Your task to perform on an android device: open the mobile data screen to see how much data has been used Image 0: 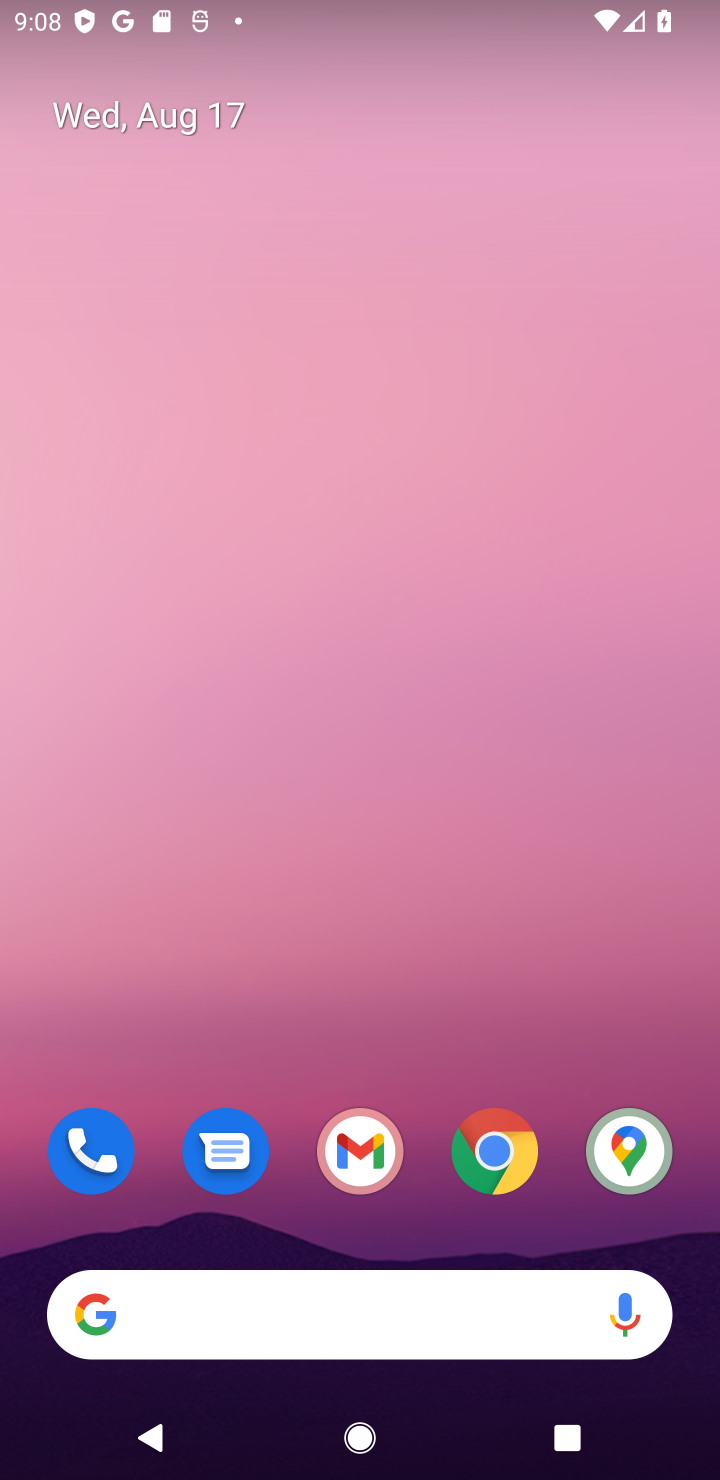
Step 0: drag from (426, 1212) to (480, 235)
Your task to perform on an android device: open the mobile data screen to see how much data has been used Image 1: 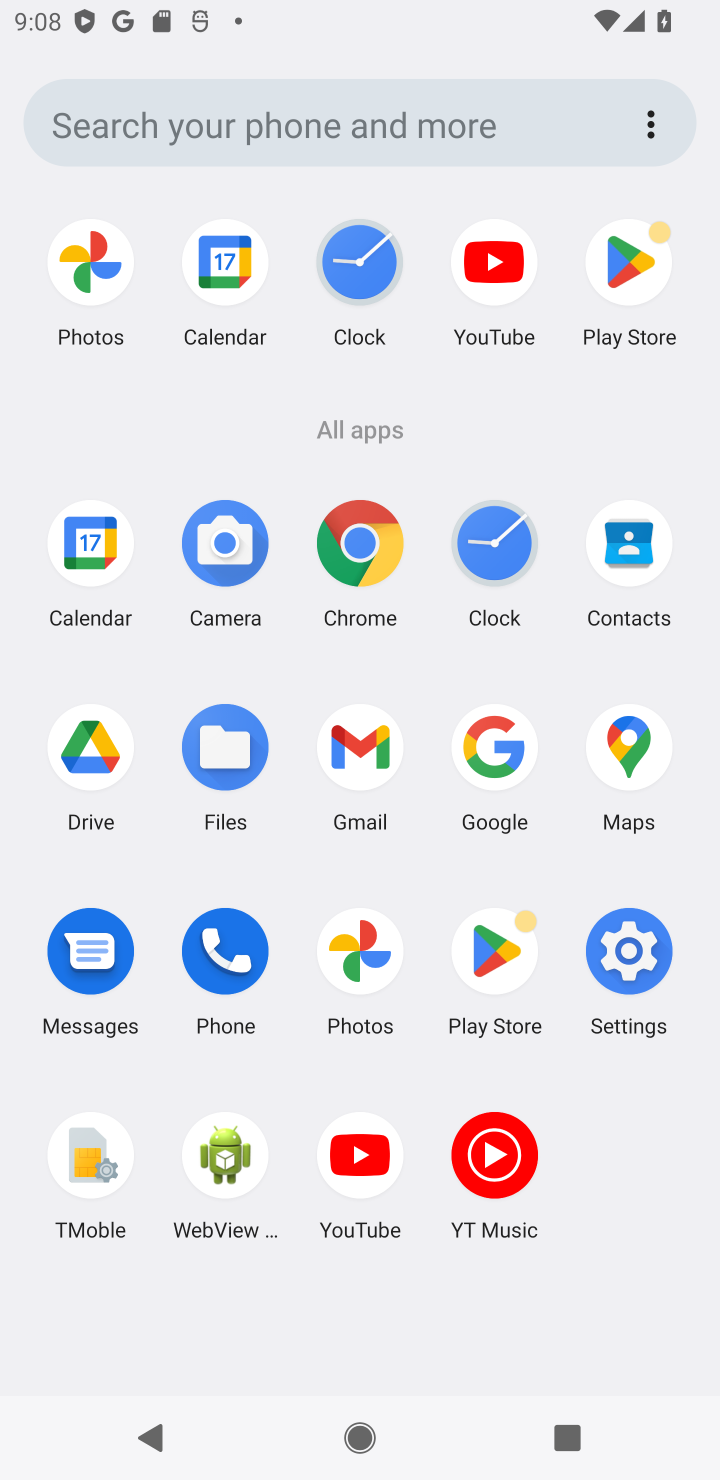
Step 1: click (608, 941)
Your task to perform on an android device: open the mobile data screen to see how much data has been used Image 2: 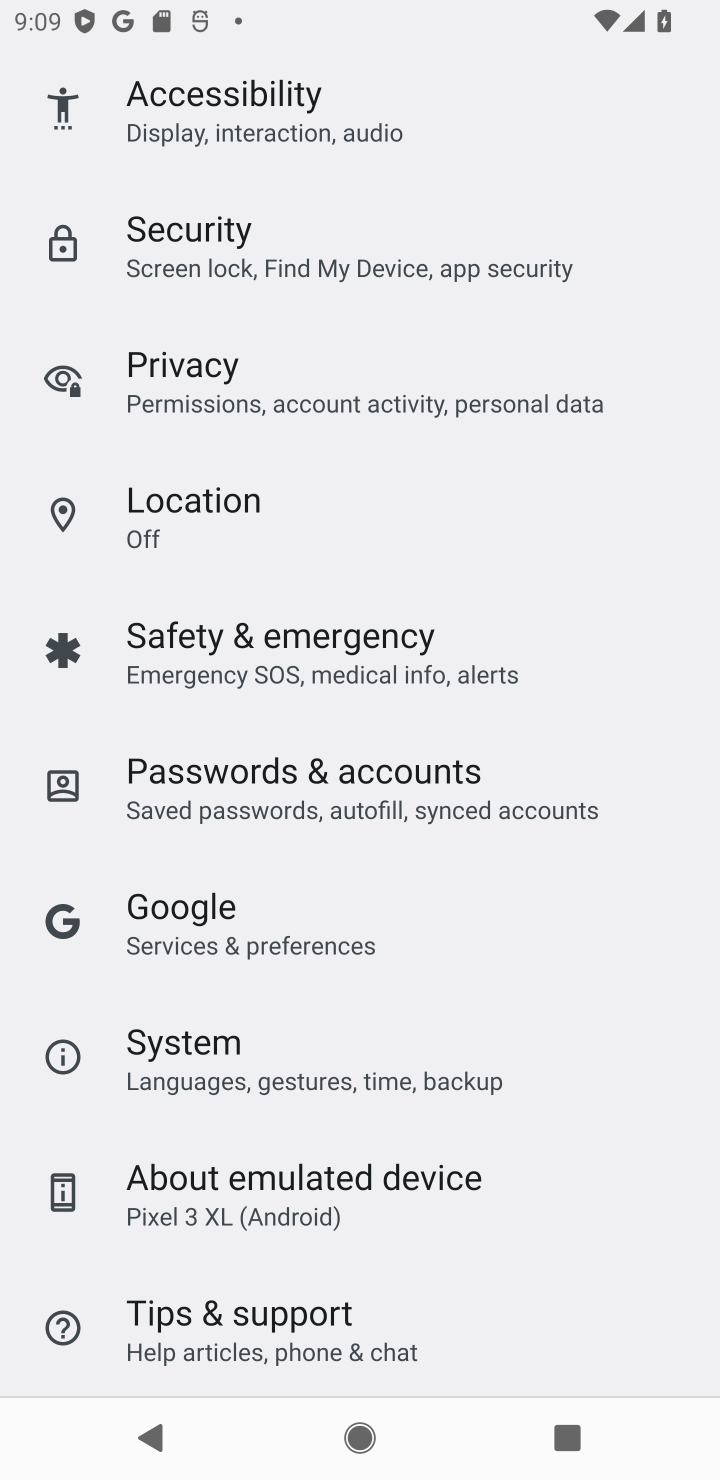
Step 2: drag from (419, 460) to (419, 932)
Your task to perform on an android device: open the mobile data screen to see how much data has been used Image 3: 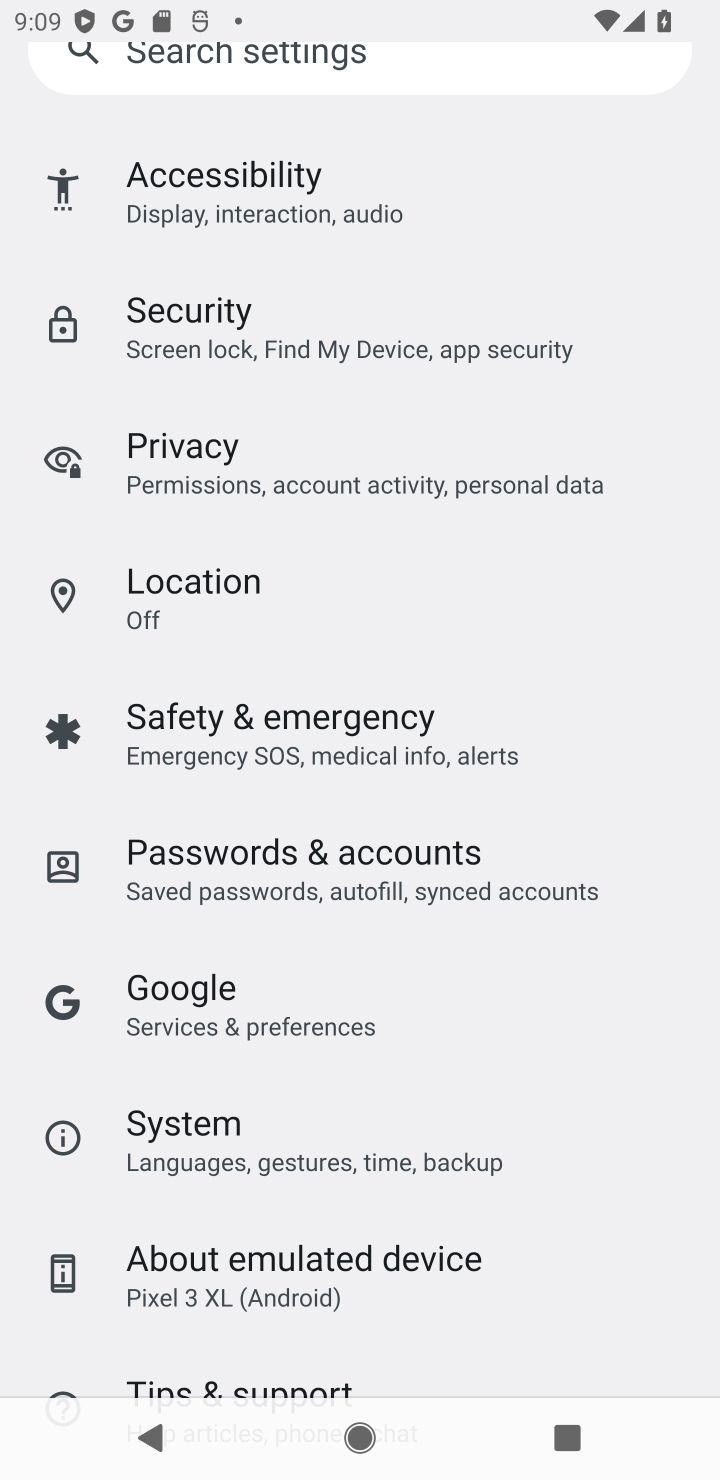
Step 3: drag from (376, 325) to (418, 890)
Your task to perform on an android device: open the mobile data screen to see how much data has been used Image 4: 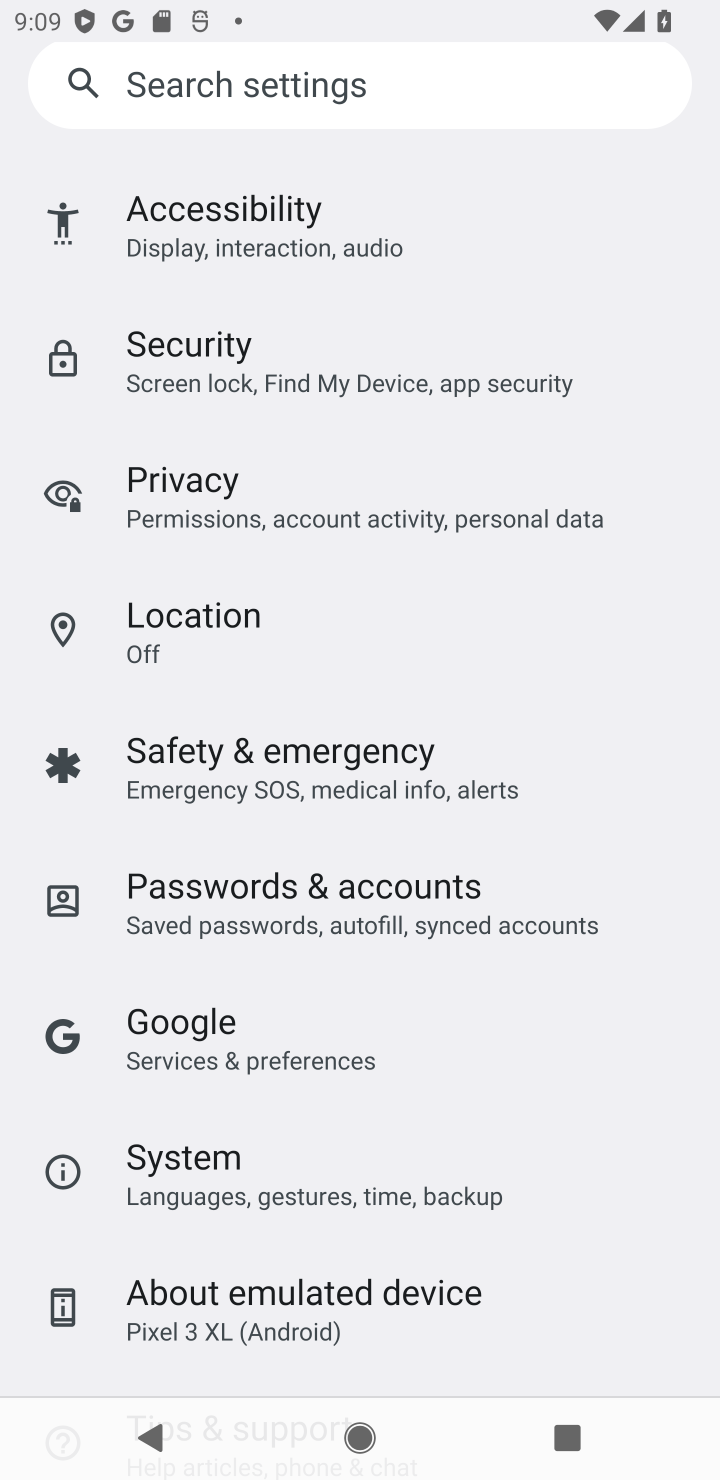
Step 4: drag from (240, 287) to (304, 952)
Your task to perform on an android device: open the mobile data screen to see how much data has been used Image 5: 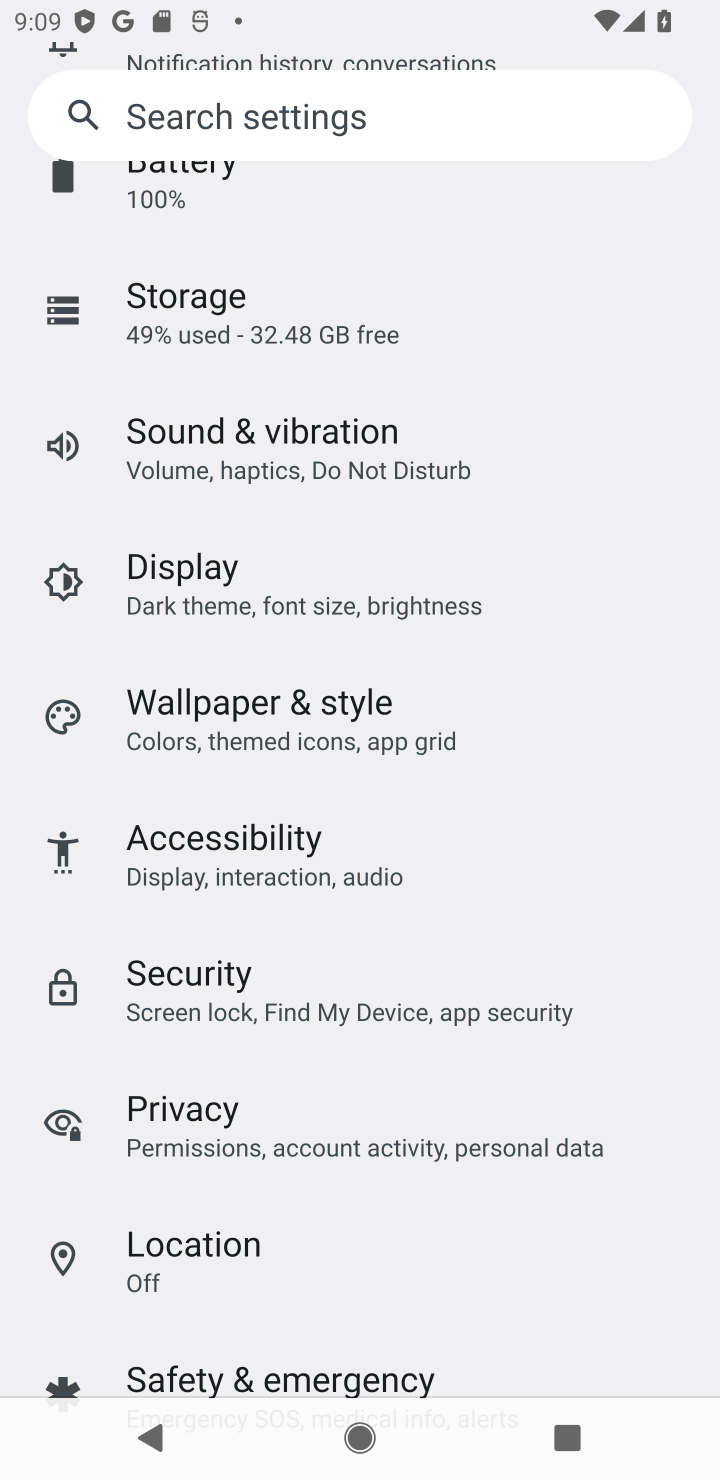
Step 5: drag from (322, 499) to (319, 933)
Your task to perform on an android device: open the mobile data screen to see how much data has been used Image 6: 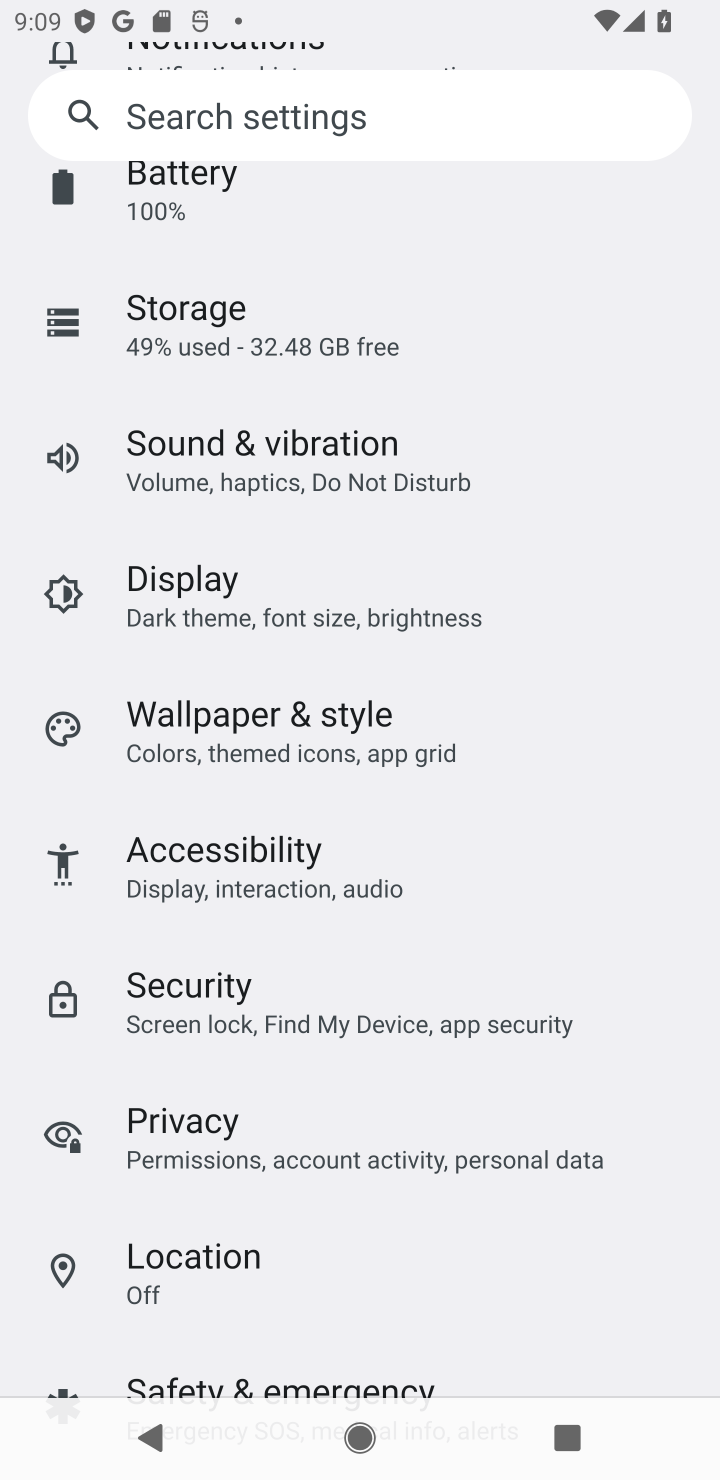
Step 6: drag from (380, 416) to (317, 1111)
Your task to perform on an android device: open the mobile data screen to see how much data has been used Image 7: 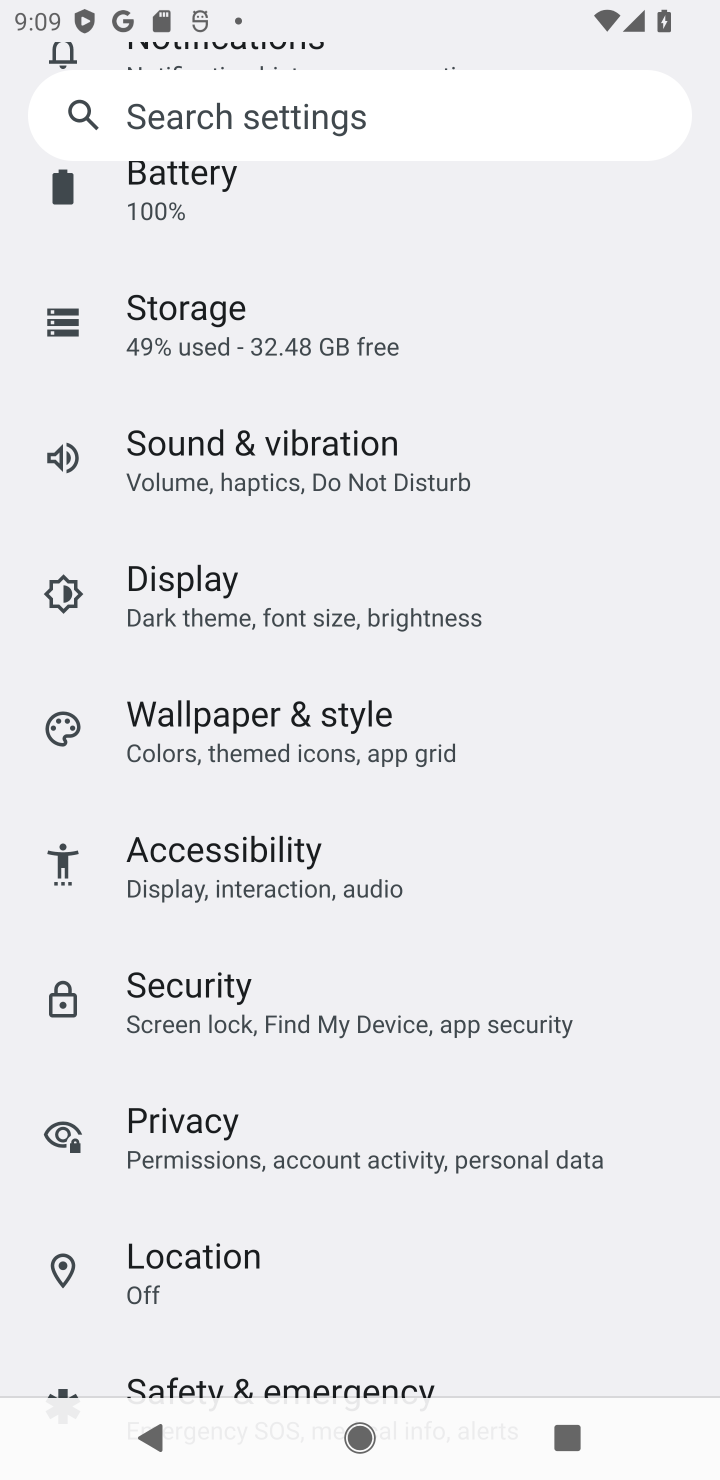
Step 7: drag from (308, 346) to (314, 933)
Your task to perform on an android device: open the mobile data screen to see how much data has been used Image 8: 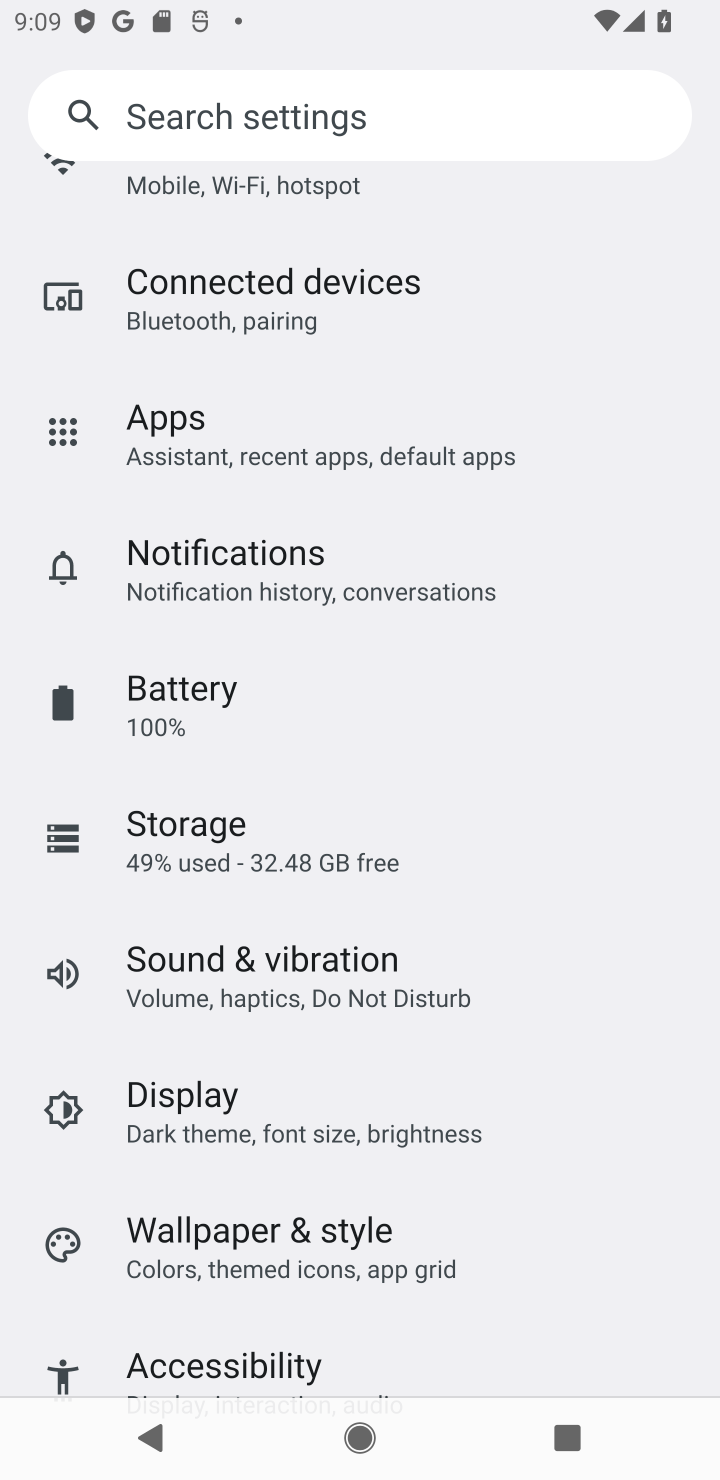
Step 8: drag from (335, 488) to (352, 926)
Your task to perform on an android device: open the mobile data screen to see how much data has been used Image 9: 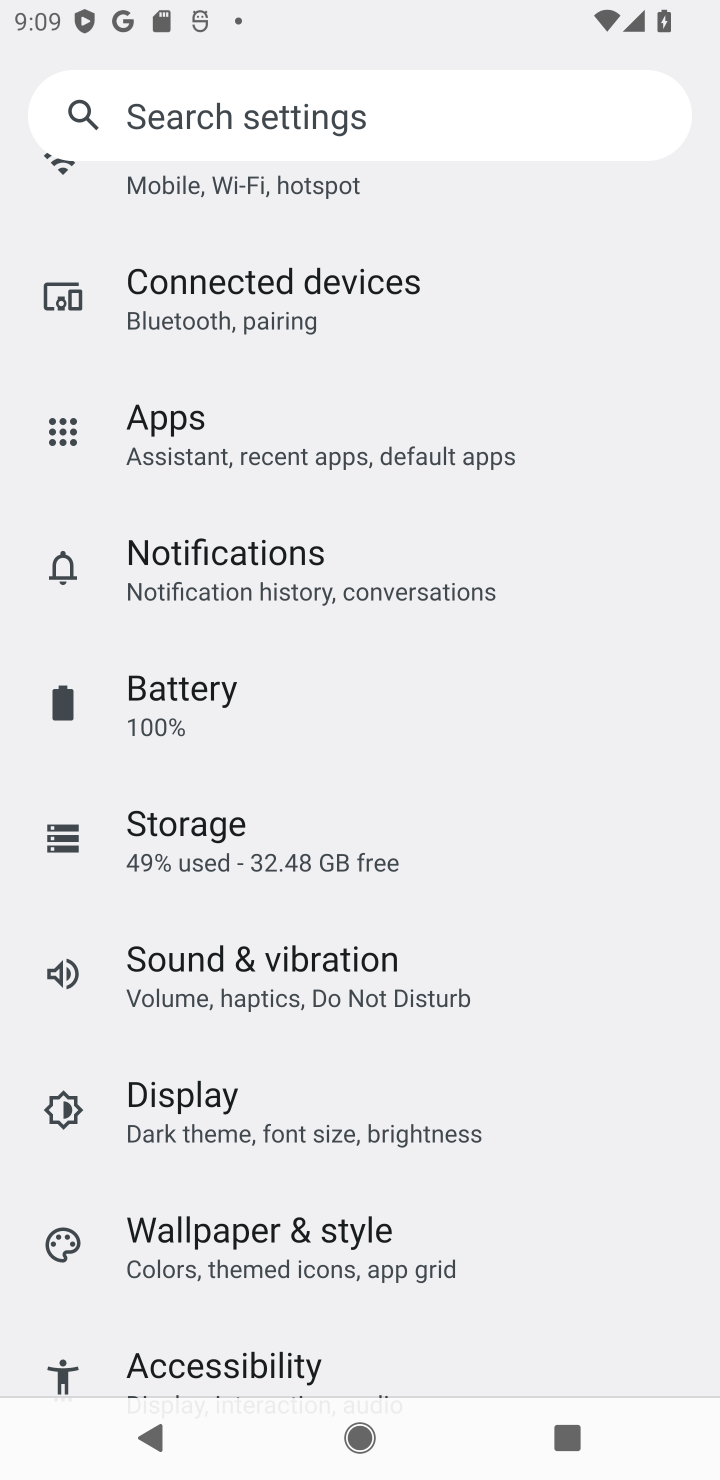
Step 9: click (385, 1181)
Your task to perform on an android device: open the mobile data screen to see how much data has been used Image 10: 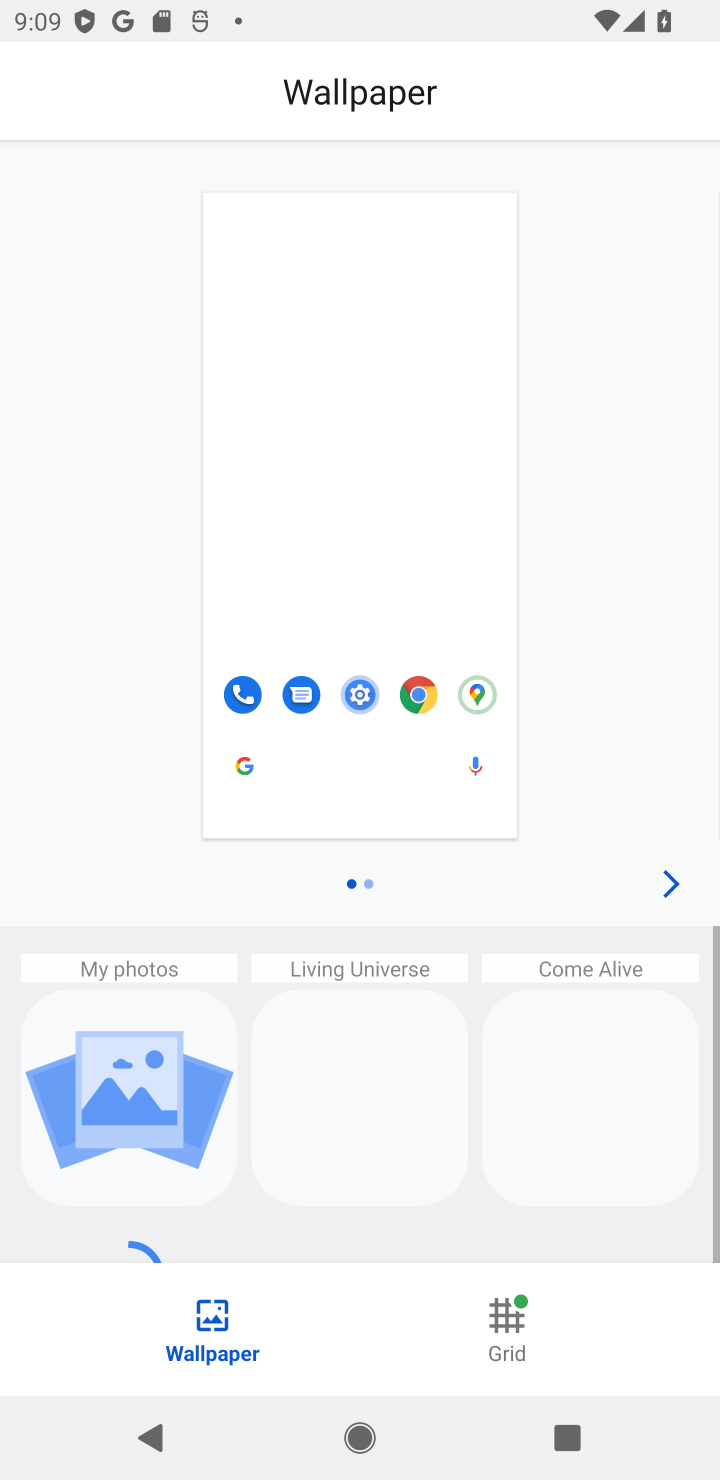
Step 10: press back button
Your task to perform on an android device: open the mobile data screen to see how much data has been used Image 11: 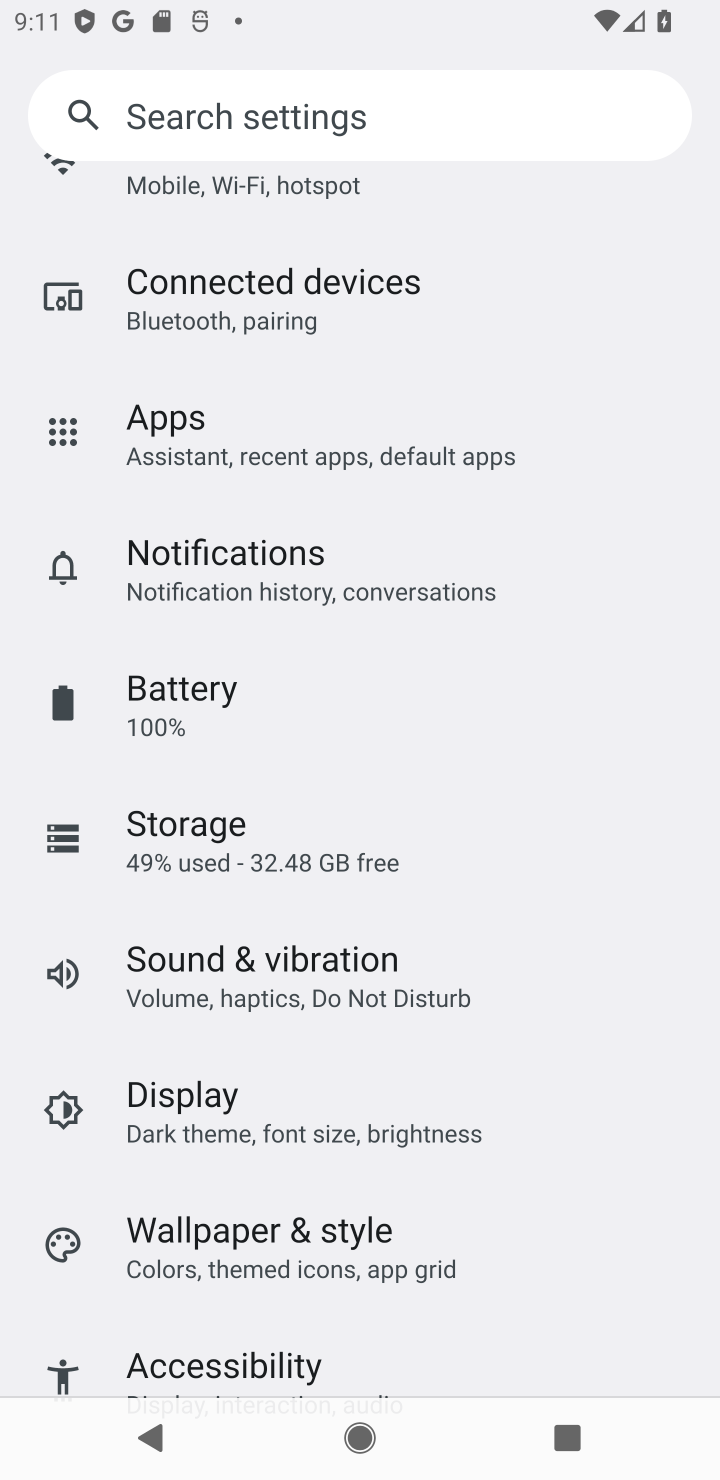
Step 11: drag from (401, 584) to (428, 1112)
Your task to perform on an android device: open the mobile data screen to see how much data has been used Image 12: 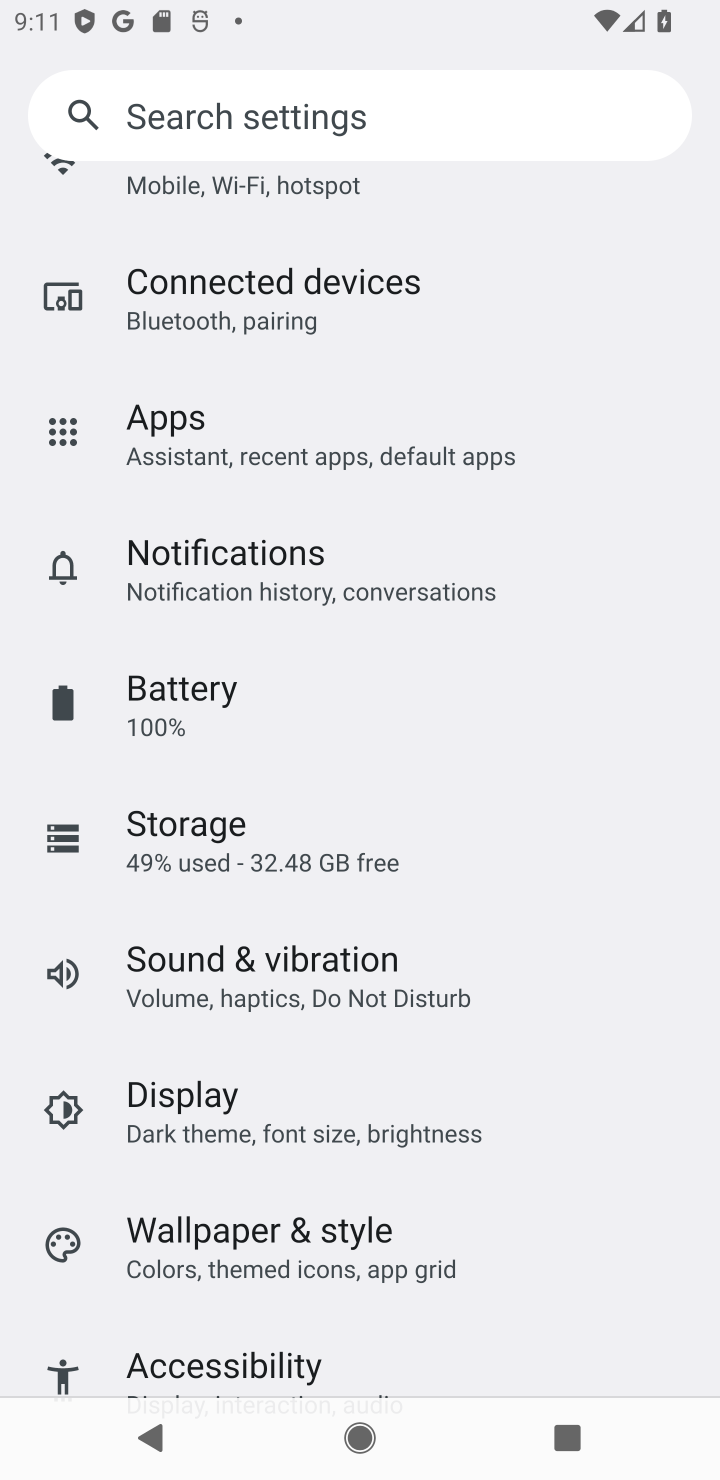
Step 12: drag from (286, 552) to (374, 1174)
Your task to perform on an android device: open the mobile data screen to see how much data has been used Image 13: 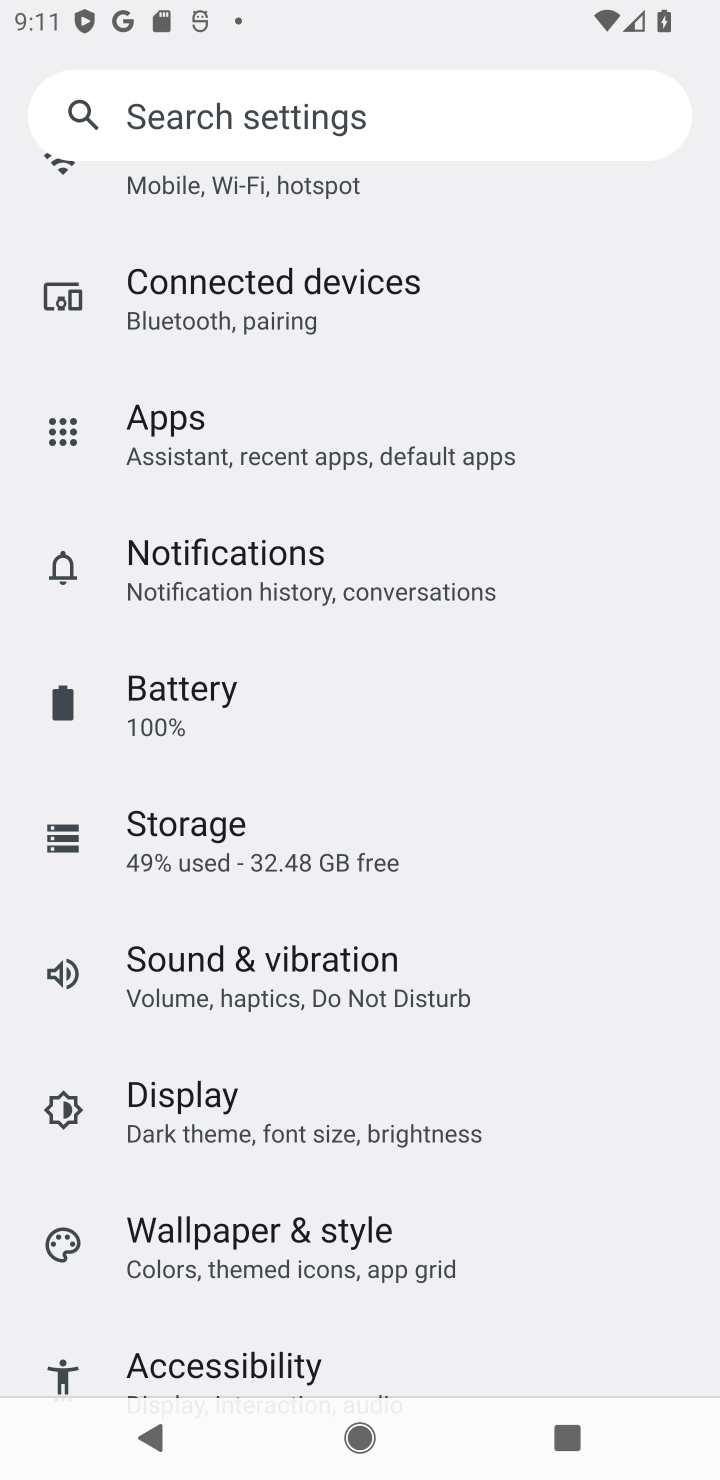
Step 13: drag from (405, 324) to (417, 942)
Your task to perform on an android device: open the mobile data screen to see how much data has been used Image 14: 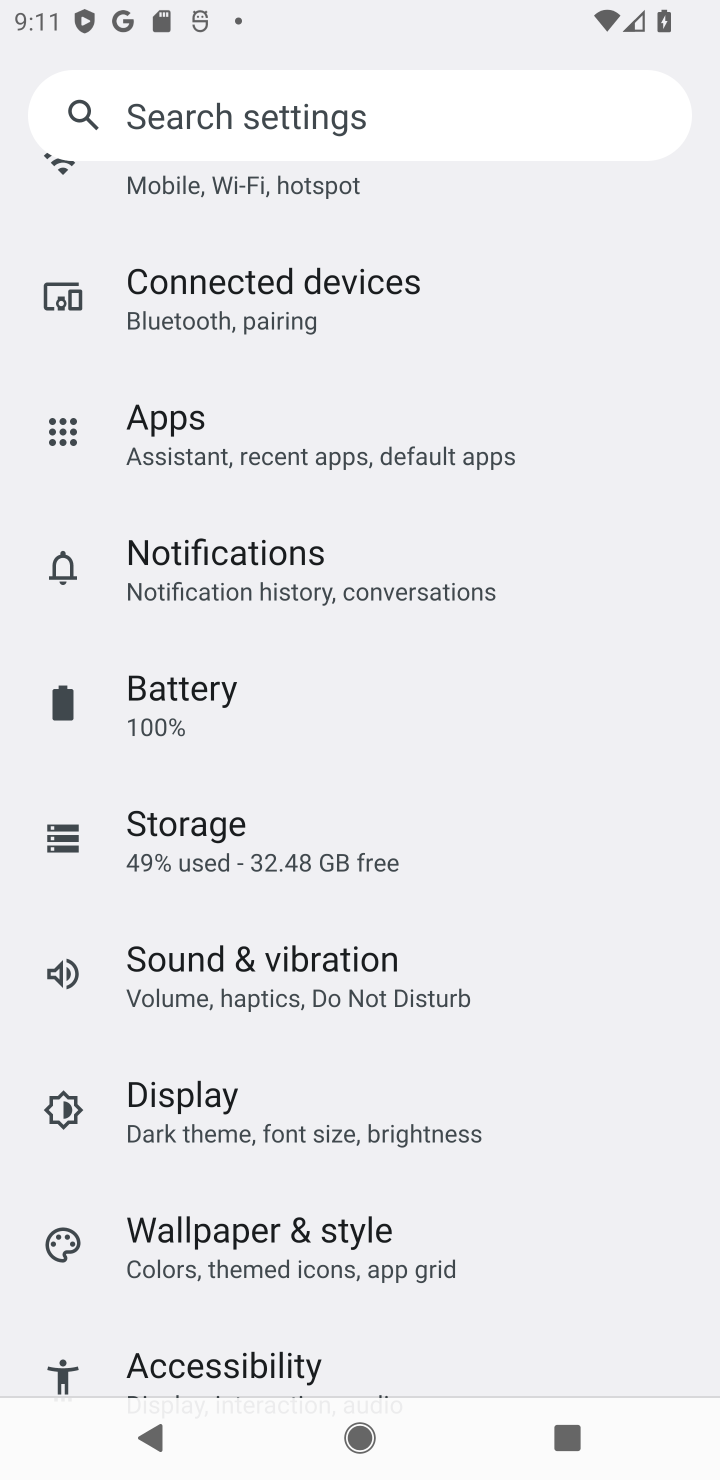
Step 14: drag from (352, 510) to (382, 1184)
Your task to perform on an android device: open the mobile data screen to see how much data has been used Image 15: 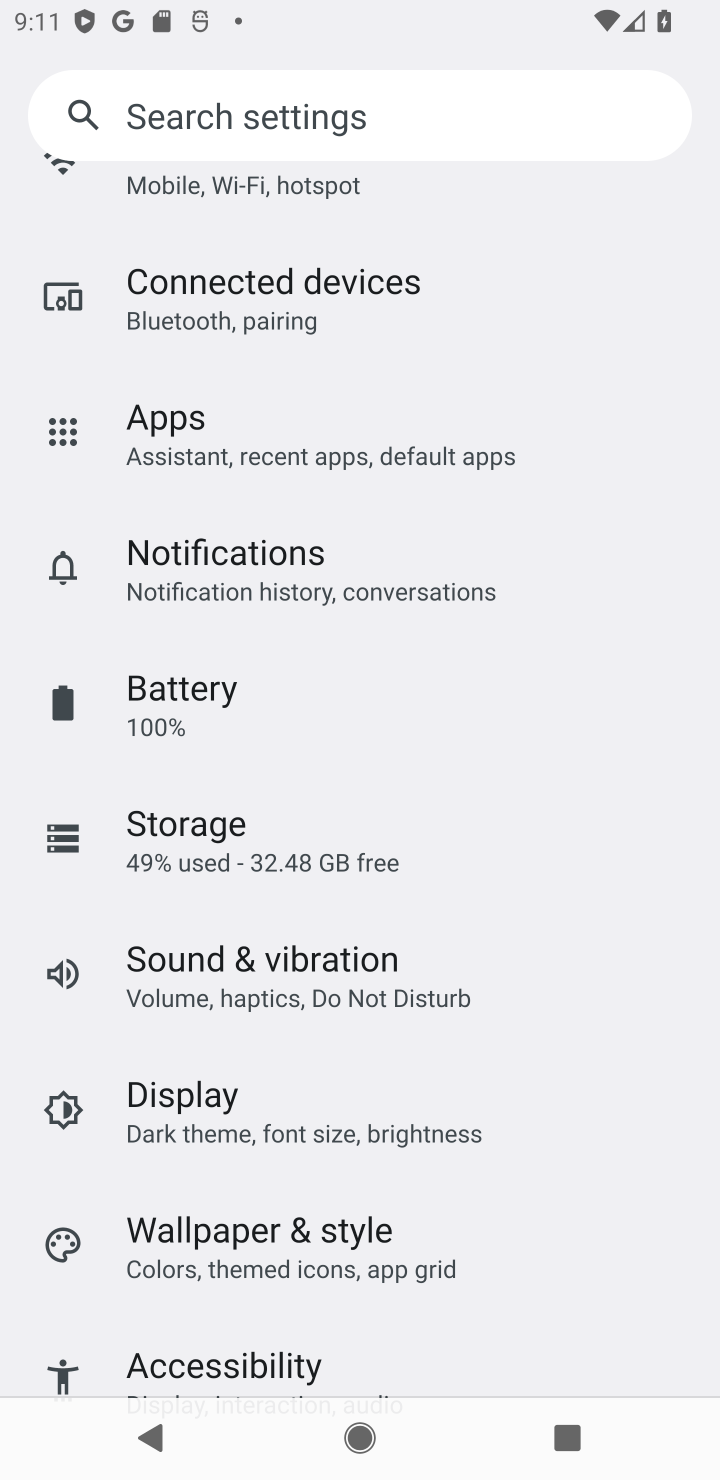
Step 15: drag from (308, 230) to (308, 949)
Your task to perform on an android device: open the mobile data screen to see how much data has been used Image 16: 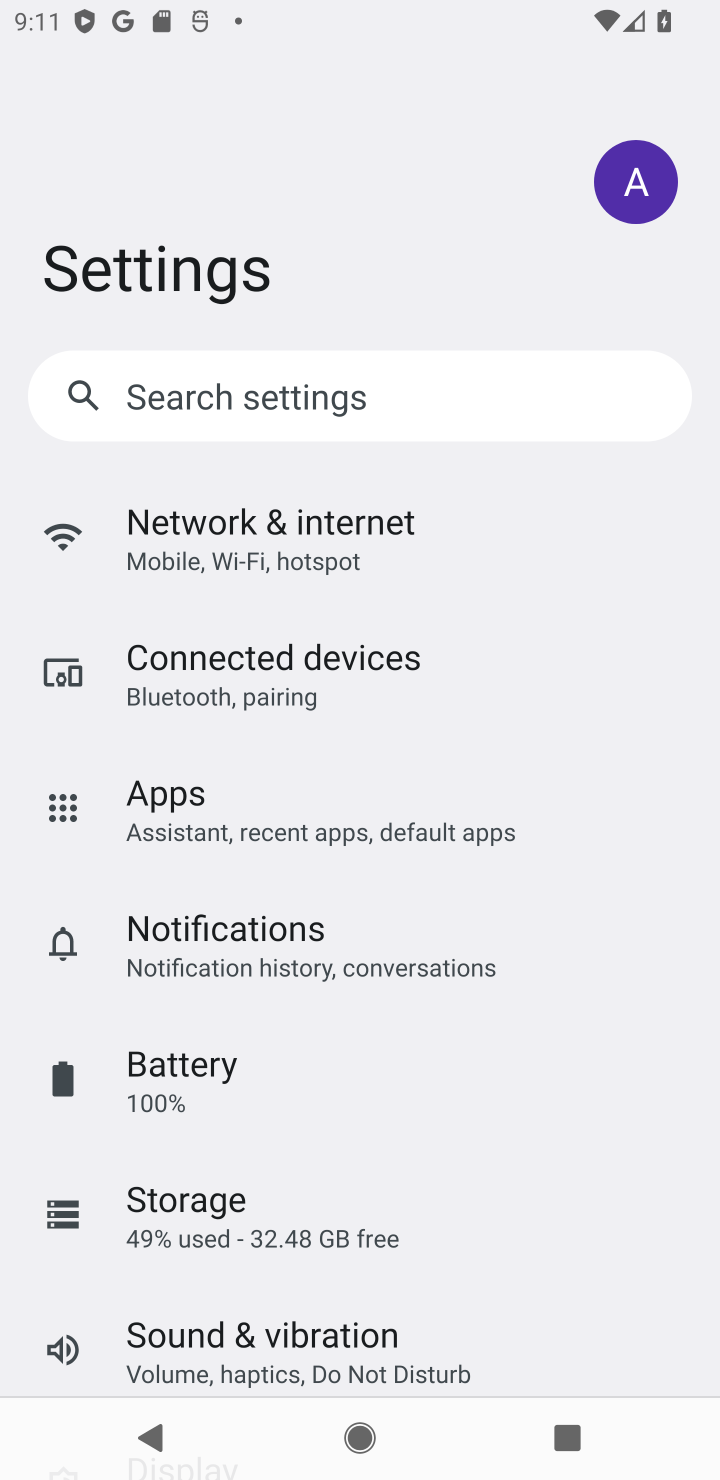
Step 16: click (193, 518)
Your task to perform on an android device: open the mobile data screen to see how much data has been used Image 17: 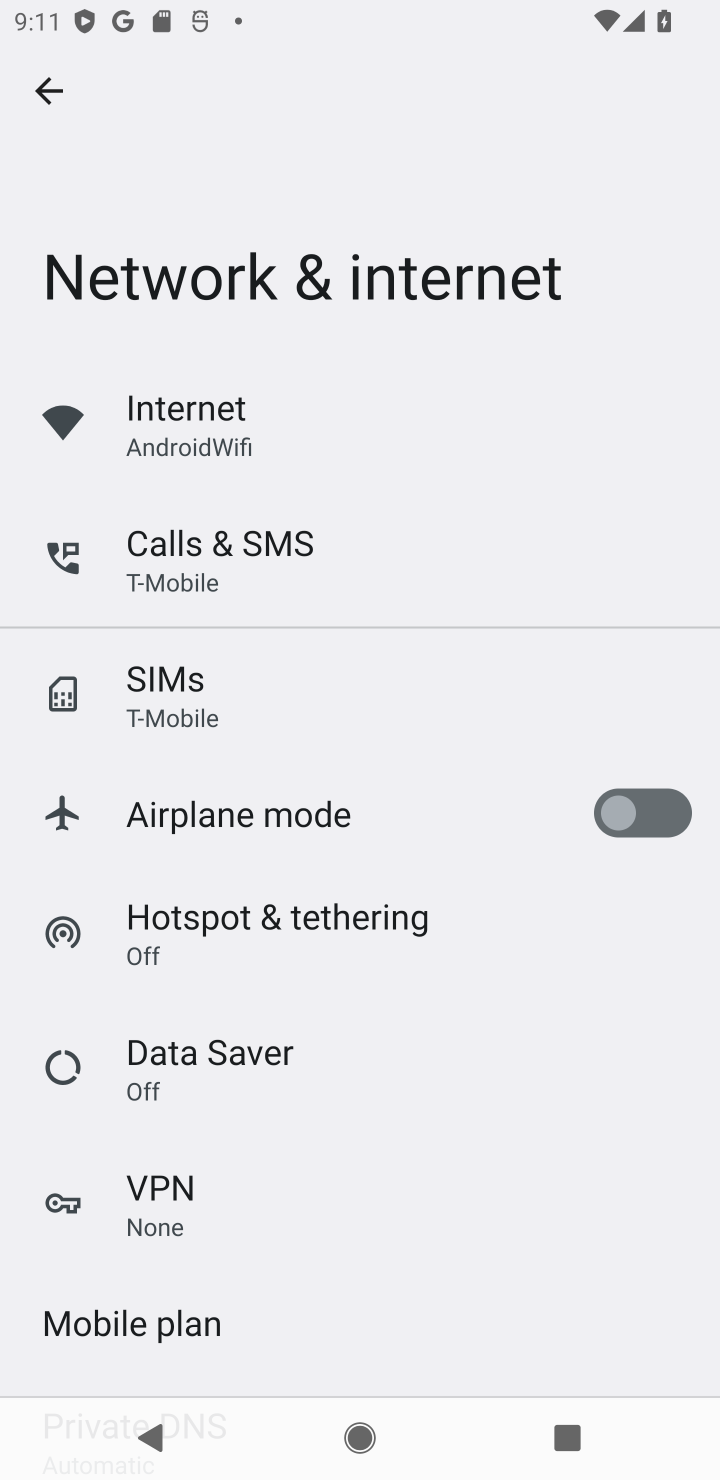
Step 17: click (225, 430)
Your task to perform on an android device: open the mobile data screen to see how much data has been used Image 18: 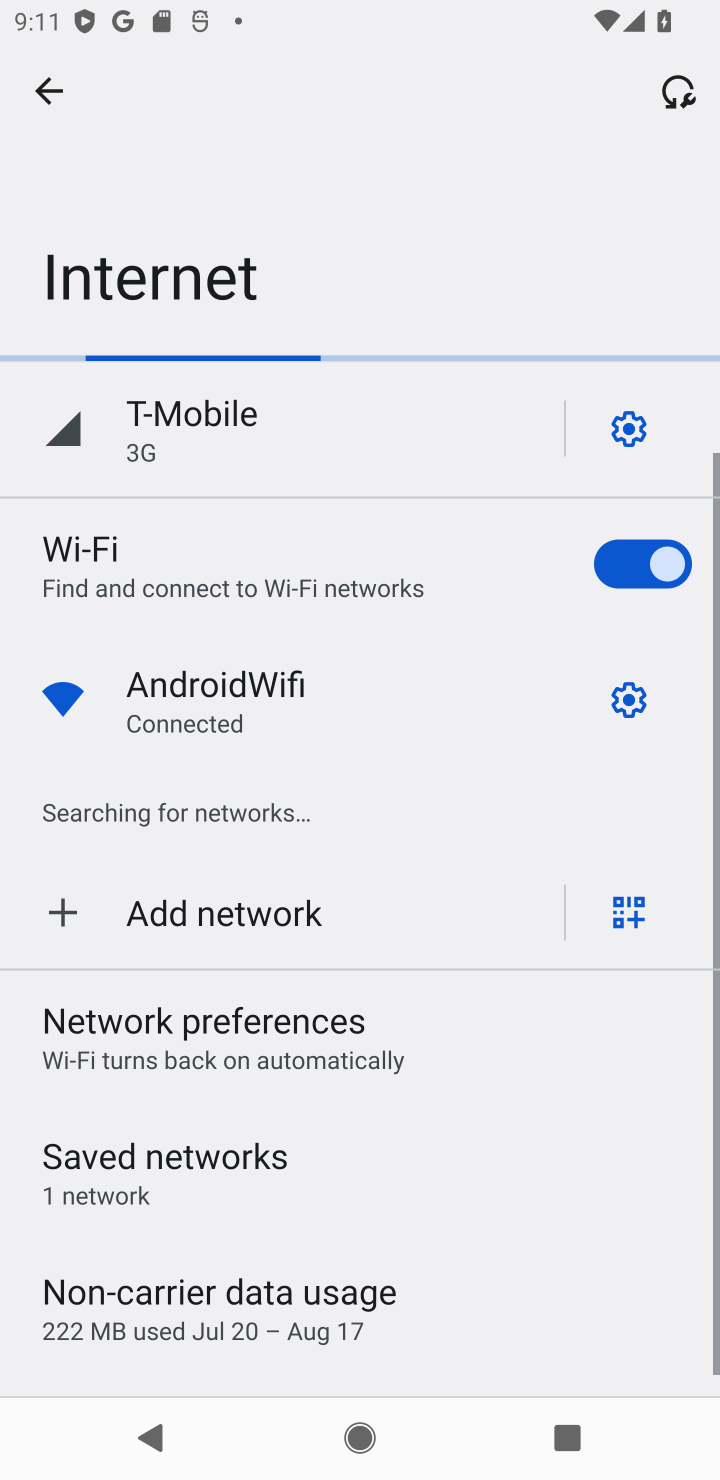
Step 18: click (239, 1315)
Your task to perform on an android device: open the mobile data screen to see how much data has been used Image 19: 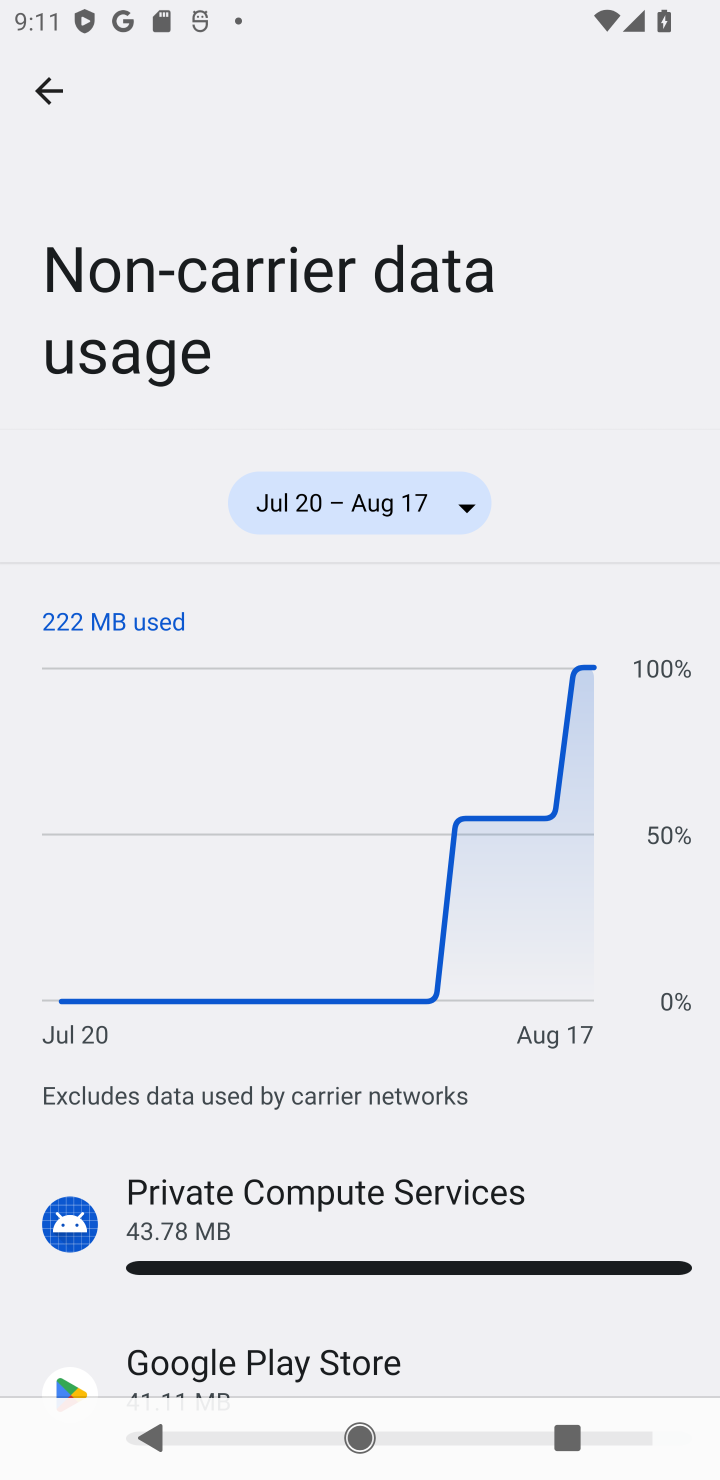
Step 19: task complete